Your task to perform on an android device: turn off picture-in-picture Image 0: 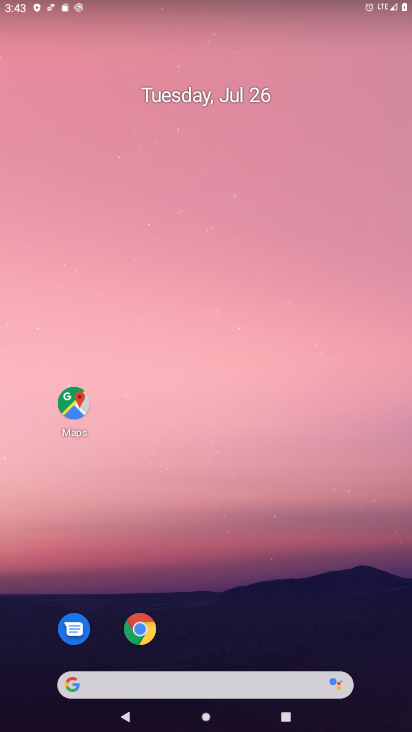
Step 0: drag from (222, 724) to (164, 268)
Your task to perform on an android device: turn off picture-in-picture Image 1: 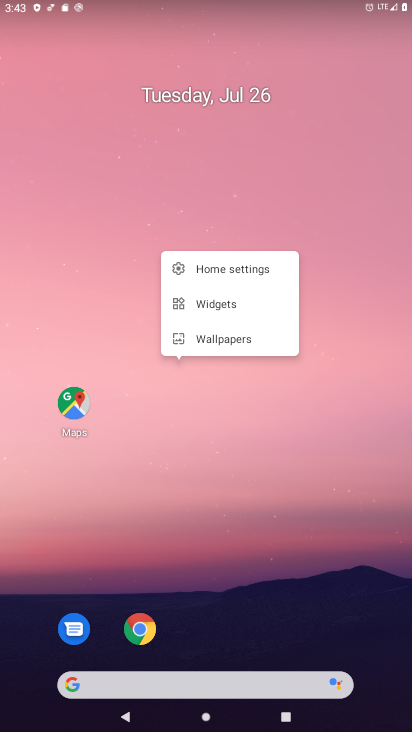
Step 1: click (275, 498)
Your task to perform on an android device: turn off picture-in-picture Image 2: 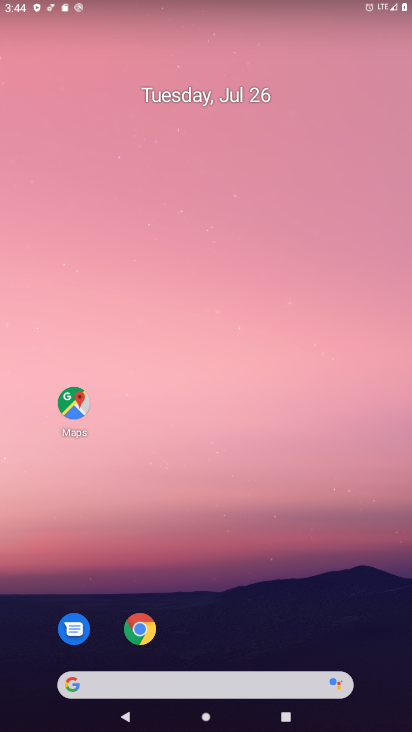
Step 2: drag from (229, 729) to (198, 142)
Your task to perform on an android device: turn off picture-in-picture Image 3: 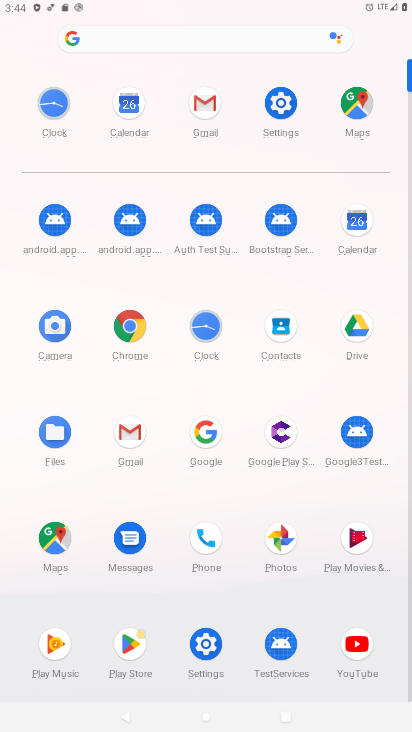
Step 3: click (275, 108)
Your task to perform on an android device: turn off picture-in-picture Image 4: 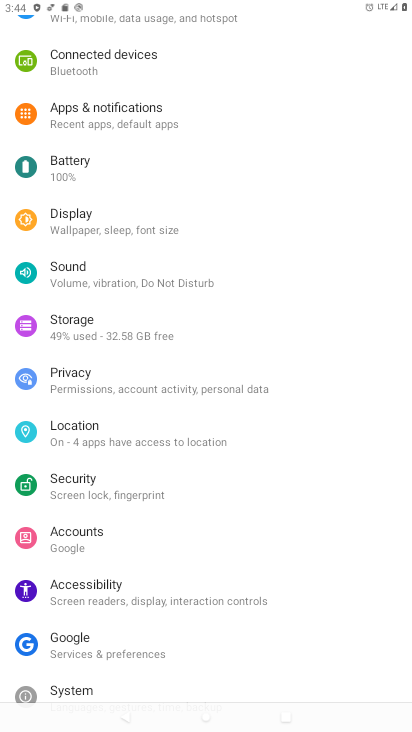
Step 4: drag from (137, 112) to (145, 445)
Your task to perform on an android device: turn off picture-in-picture Image 5: 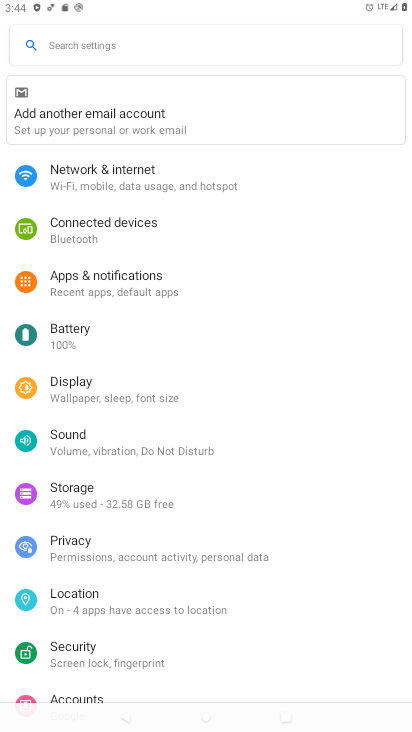
Step 5: click (111, 285)
Your task to perform on an android device: turn off picture-in-picture Image 6: 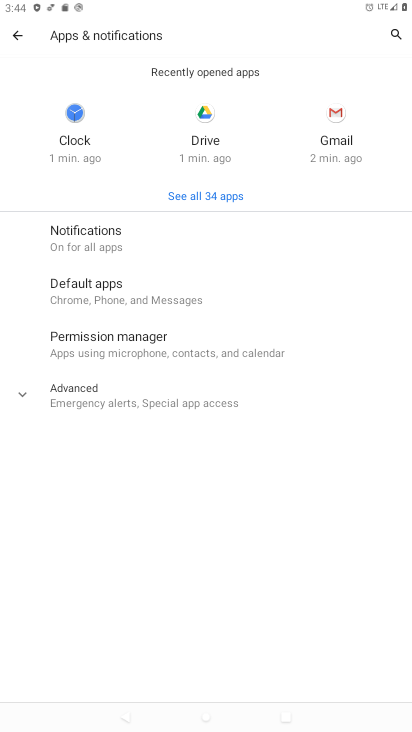
Step 6: click (92, 402)
Your task to perform on an android device: turn off picture-in-picture Image 7: 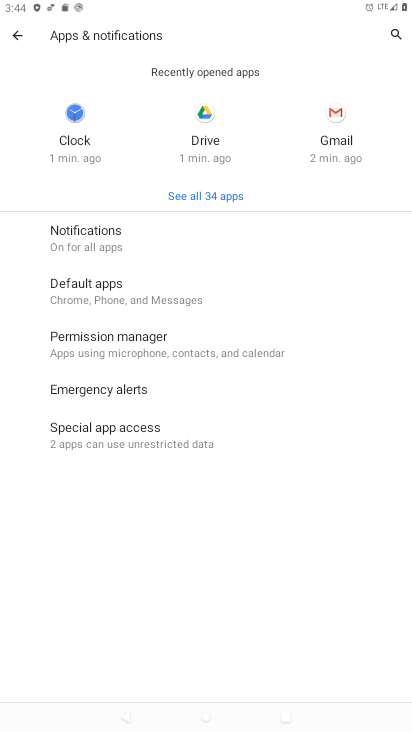
Step 7: click (133, 439)
Your task to perform on an android device: turn off picture-in-picture Image 8: 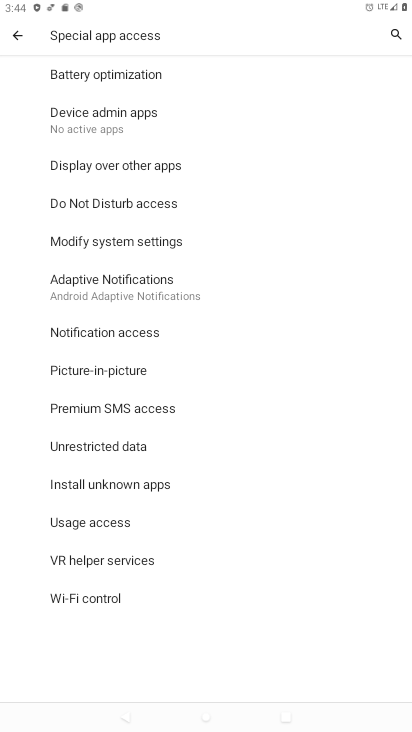
Step 8: click (110, 366)
Your task to perform on an android device: turn off picture-in-picture Image 9: 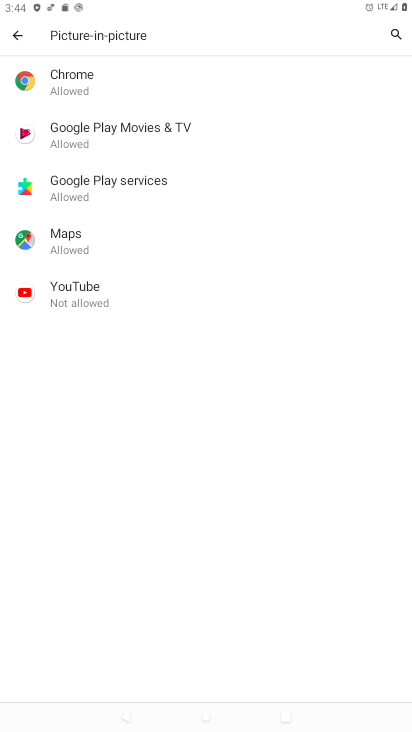
Step 9: click (100, 294)
Your task to perform on an android device: turn off picture-in-picture Image 10: 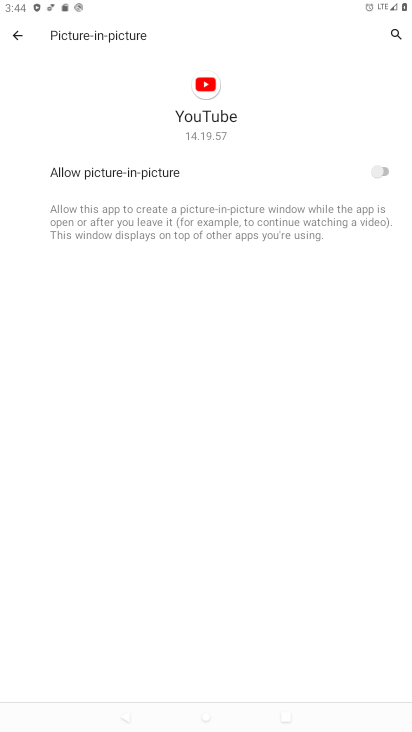
Step 10: task complete